Your task to perform on an android device: Go to Maps Image 0: 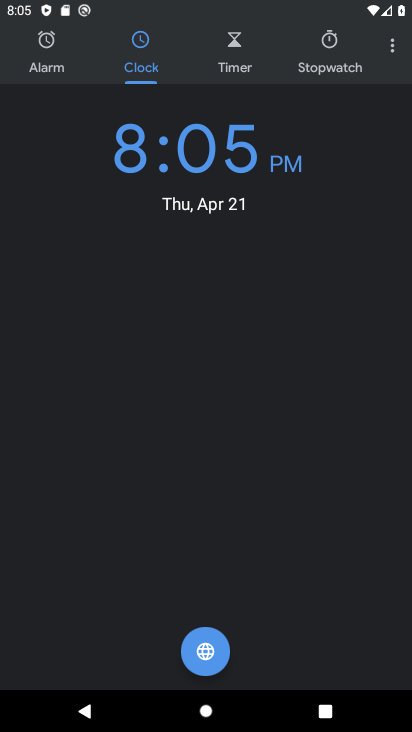
Step 0: press home button
Your task to perform on an android device: Go to Maps Image 1: 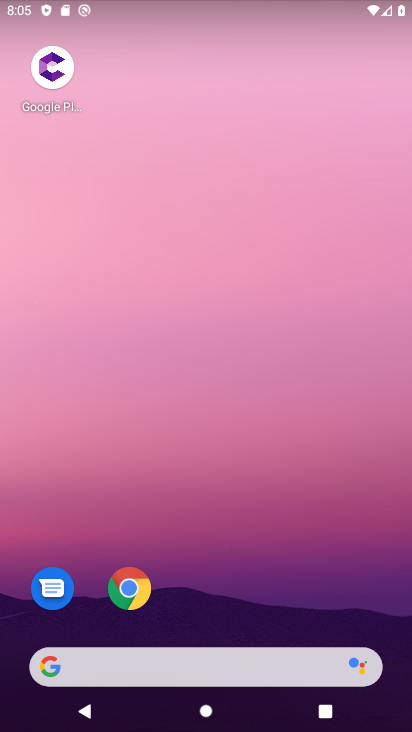
Step 1: drag from (253, 609) to (303, 87)
Your task to perform on an android device: Go to Maps Image 2: 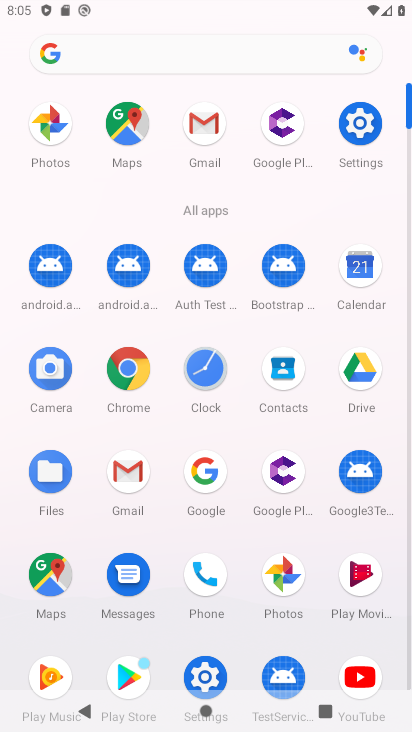
Step 2: click (127, 116)
Your task to perform on an android device: Go to Maps Image 3: 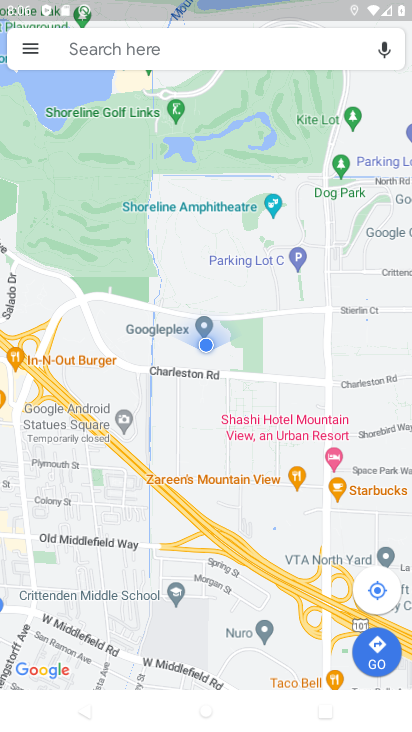
Step 3: task complete